Your task to perform on an android device: delete browsing data in the chrome app Image 0: 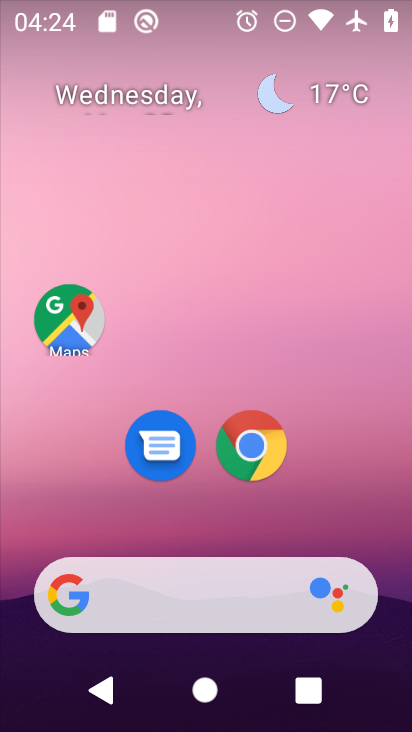
Step 0: drag from (209, 587) to (67, 52)
Your task to perform on an android device: delete browsing data in the chrome app Image 1: 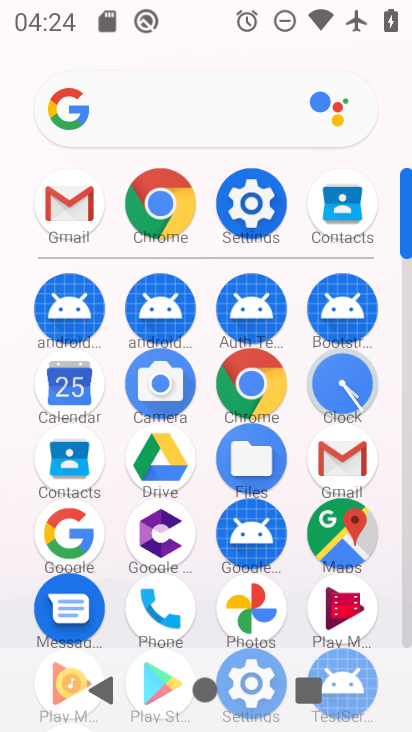
Step 1: click (164, 213)
Your task to perform on an android device: delete browsing data in the chrome app Image 2: 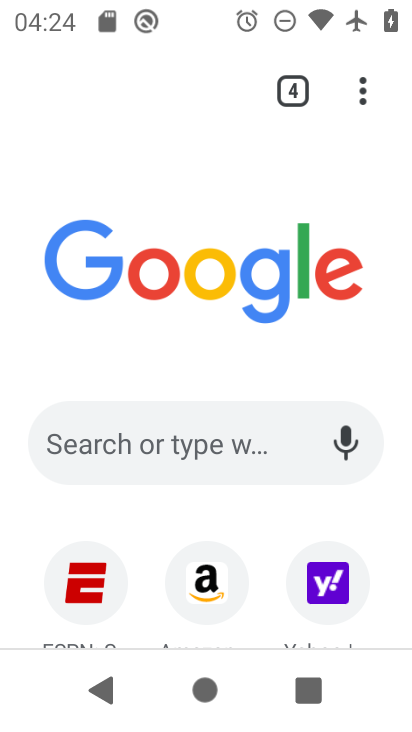
Step 2: drag from (359, 82) to (227, 496)
Your task to perform on an android device: delete browsing data in the chrome app Image 3: 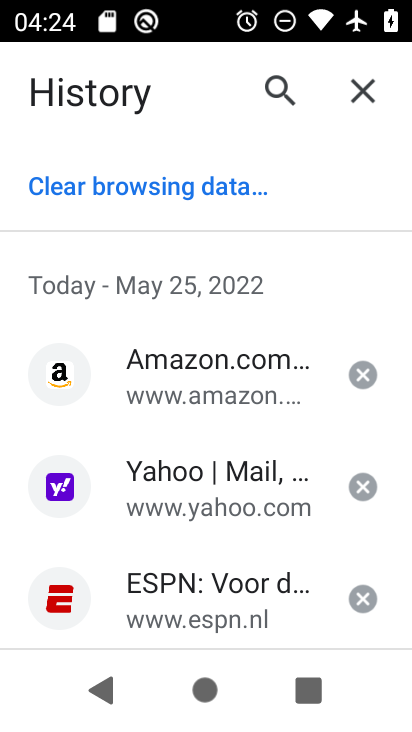
Step 3: click (135, 185)
Your task to perform on an android device: delete browsing data in the chrome app Image 4: 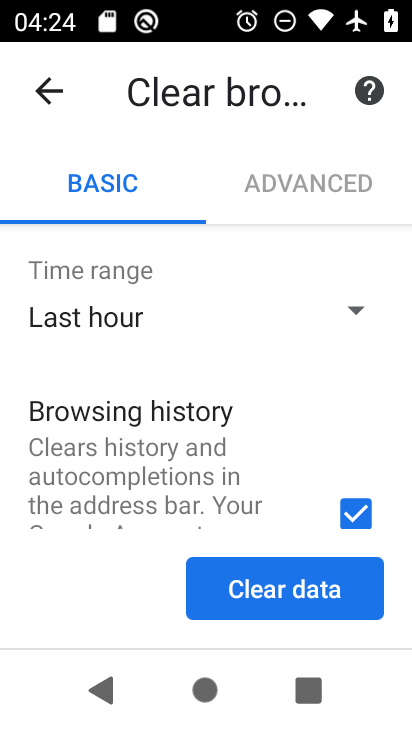
Step 4: click (273, 589)
Your task to perform on an android device: delete browsing data in the chrome app Image 5: 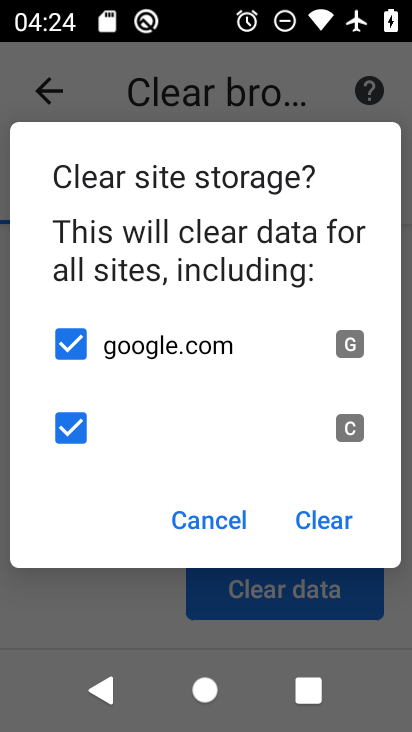
Step 5: click (331, 514)
Your task to perform on an android device: delete browsing data in the chrome app Image 6: 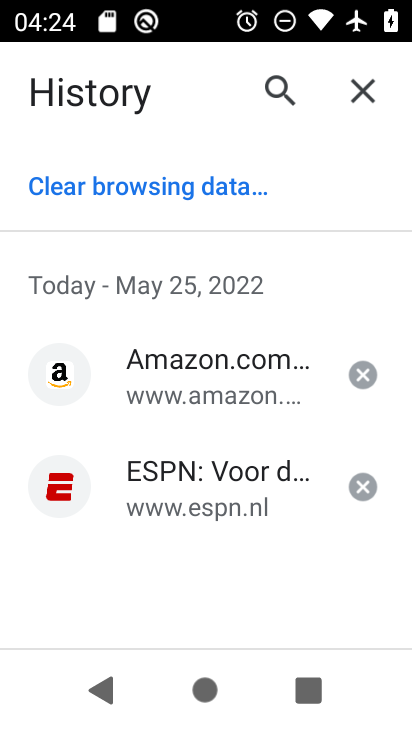
Step 6: task complete